Your task to perform on an android device: toggle translation in the chrome app Image 0: 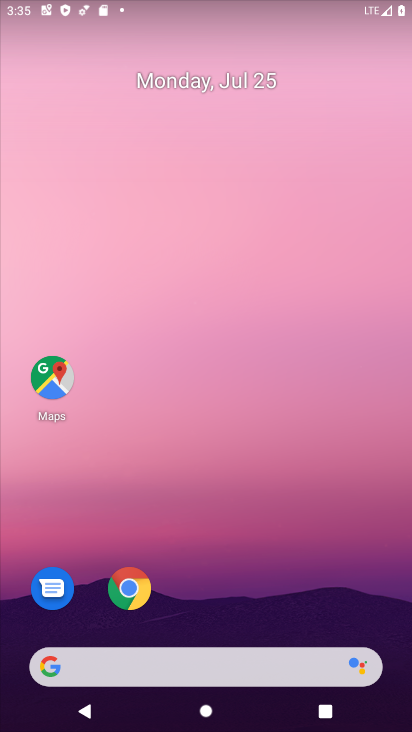
Step 0: click (130, 607)
Your task to perform on an android device: toggle translation in the chrome app Image 1: 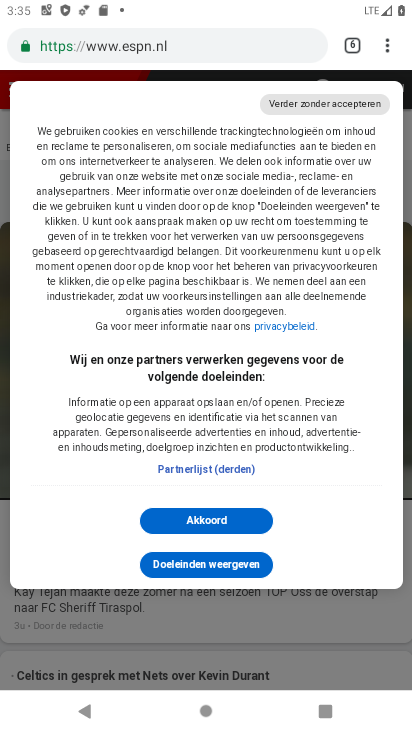
Step 1: click (393, 51)
Your task to perform on an android device: toggle translation in the chrome app Image 2: 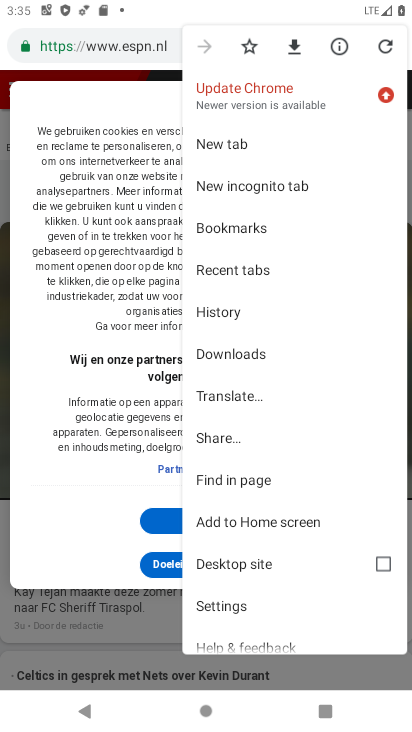
Step 2: click (241, 596)
Your task to perform on an android device: toggle translation in the chrome app Image 3: 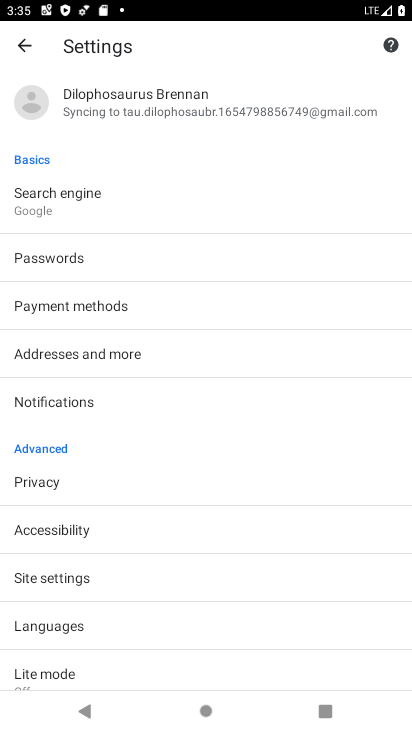
Step 3: click (86, 617)
Your task to perform on an android device: toggle translation in the chrome app Image 4: 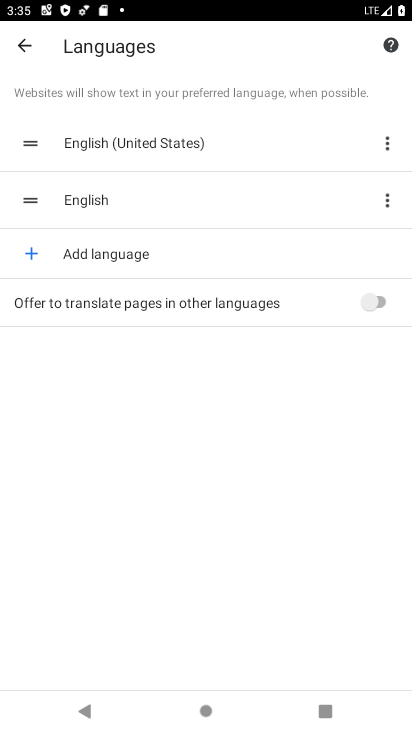
Step 4: click (382, 297)
Your task to perform on an android device: toggle translation in the chrome app Image 5: 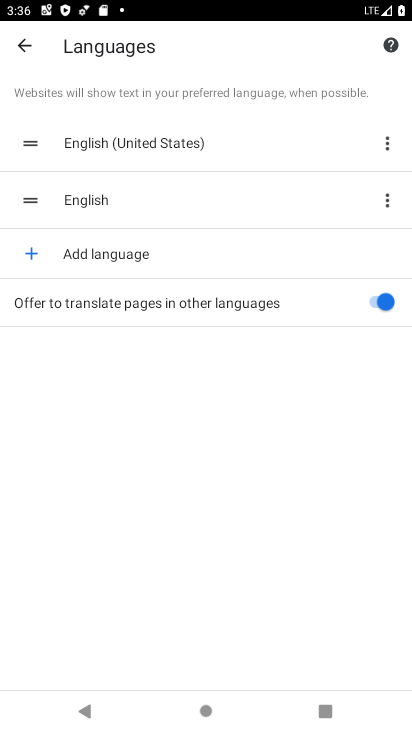
Step 5: task complete